Your task to perform on an android device: empty trash in the gmail app Image 0: 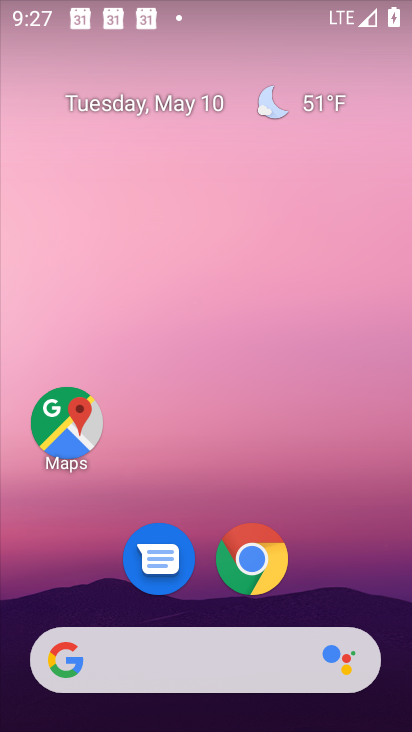
Step 0: drag from (336, 570) to (272, 132)
Your task to perform on an android device: empty trash in the gmail app Image 1: 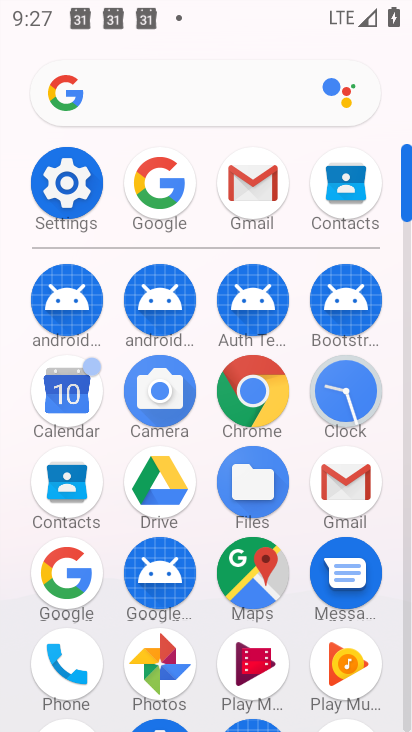
Step 1: click (252, 187)
Your task to perform on an android device: empty trash in the gmail app Image 2: 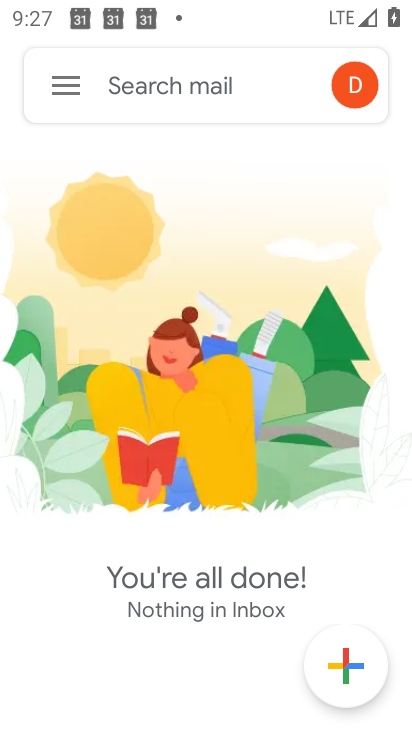
Step 2: click (60, 85)
Your task to perform on an android device: empty trash in the gmail app Image 3: 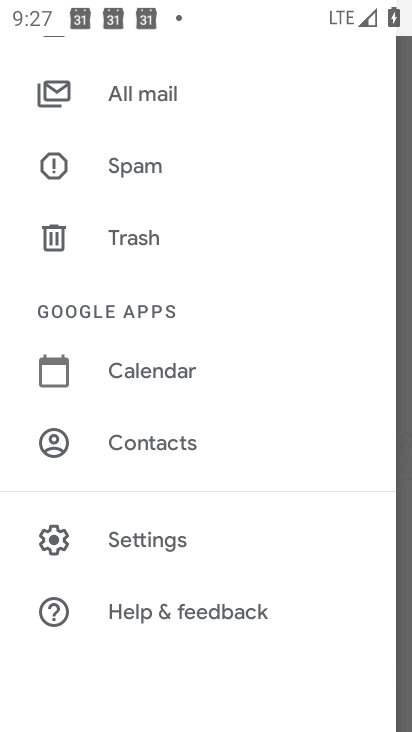
Step 3: click (123, 233)
Your task to perform on an android device: empty trash in the gmail app Image 4: 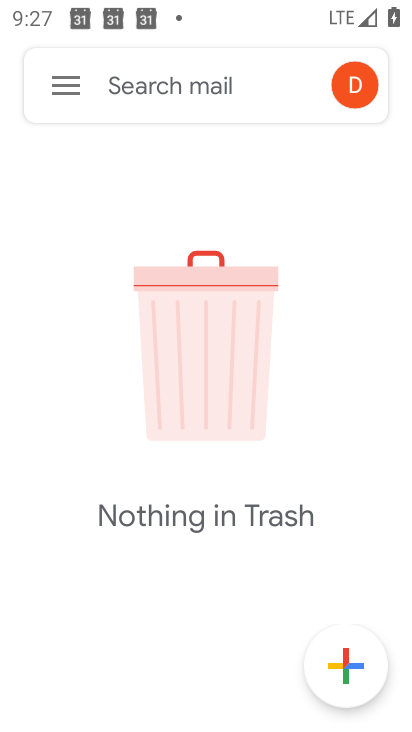
Step 4: task complete